Your task to perform on an android device: Open the calendar and show me this week's events? Image 0: 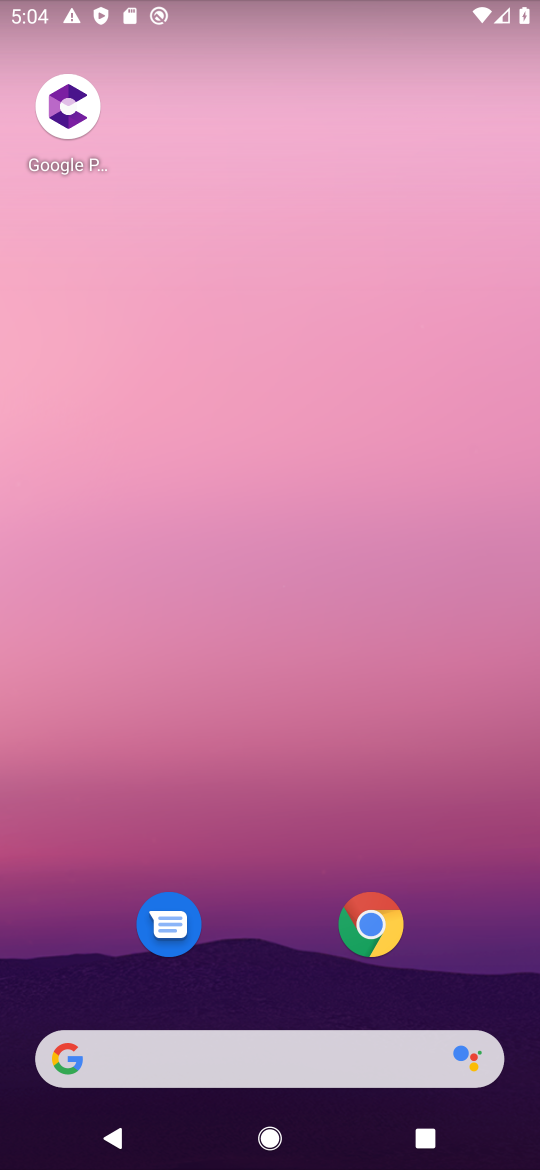
Step 0: drag from (358, 1123) to (281, 6)
Your task to perform on an android device: Open the calendar and show me this week's events? Image 1: 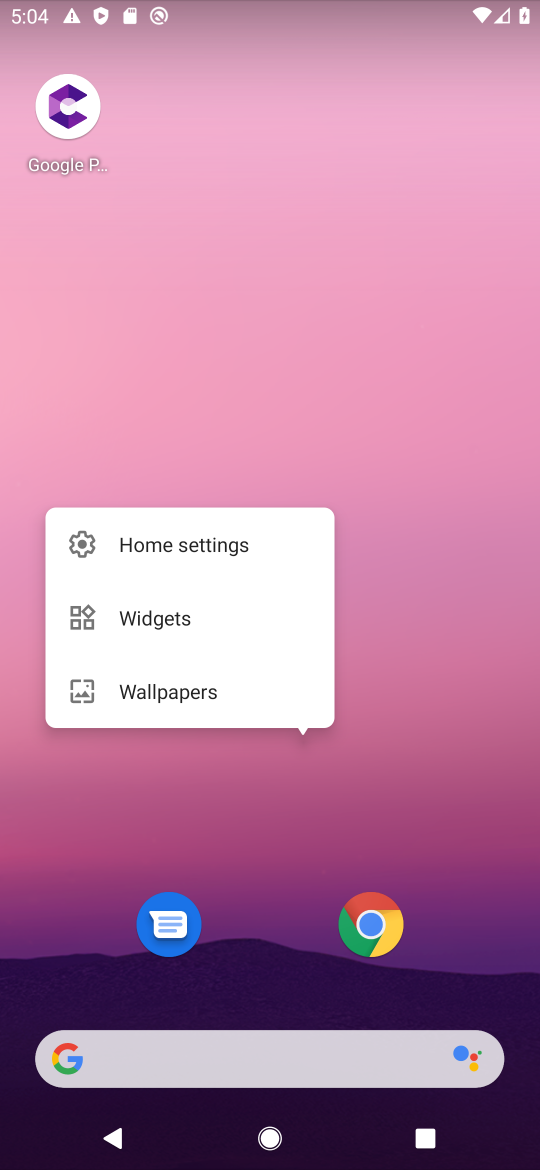
Step 1: click (350, 1124)
Your task to perform on an android device: Open the calendar and show me this week's events? Image 2: 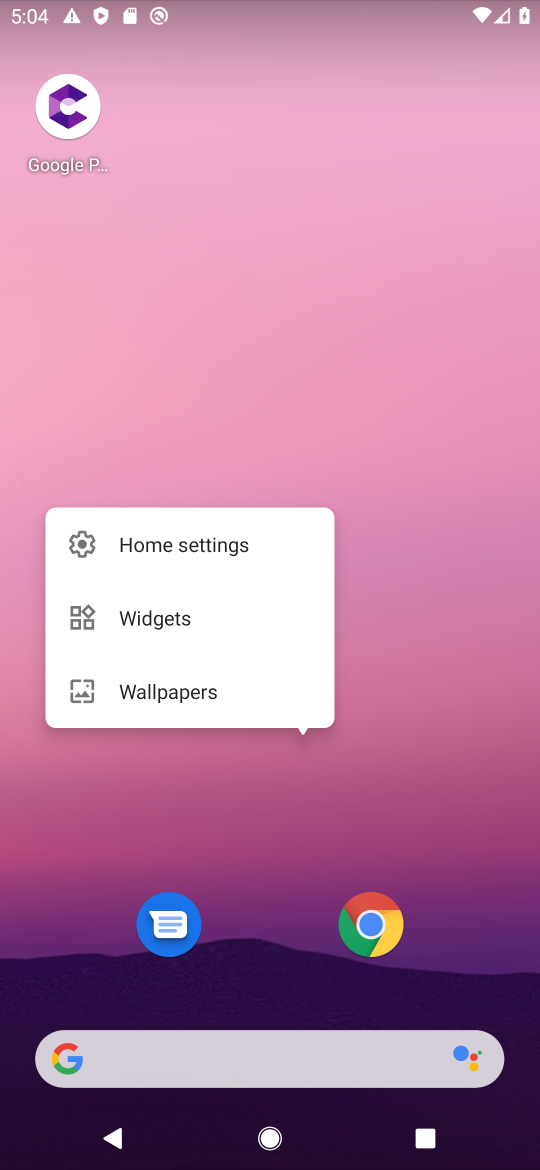
Step 2: drag from (354, 1122) to (372, 257)
Your task to perform on an android device: Open the calendar and show me this week's events? Image 3: 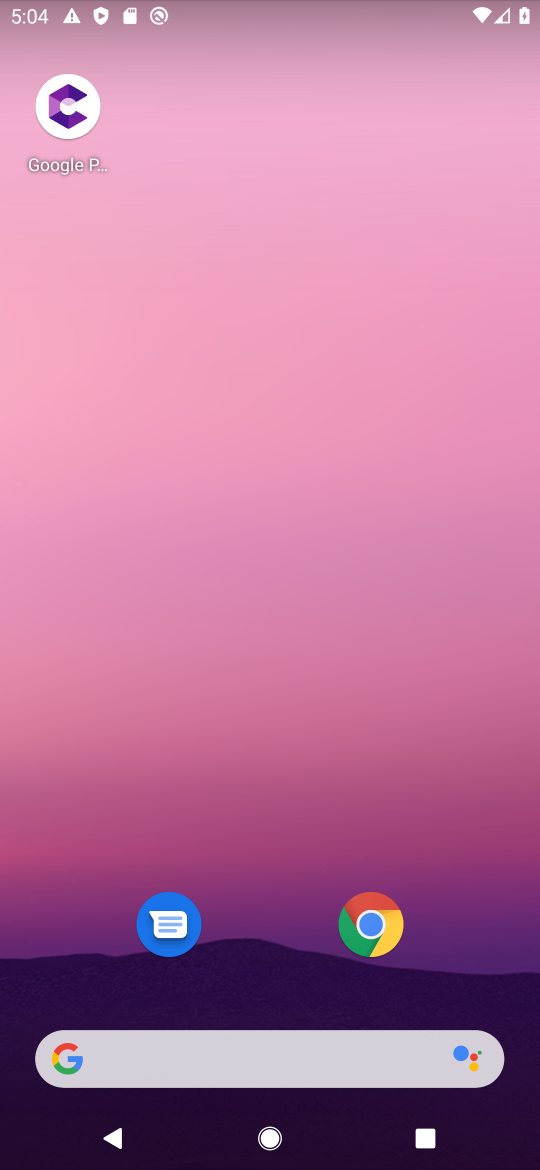
Step 3: drag from (196, 1129) to (253, 208)
Your task to perform on an android device: Open the calendar and show me this week's events? Image 4: 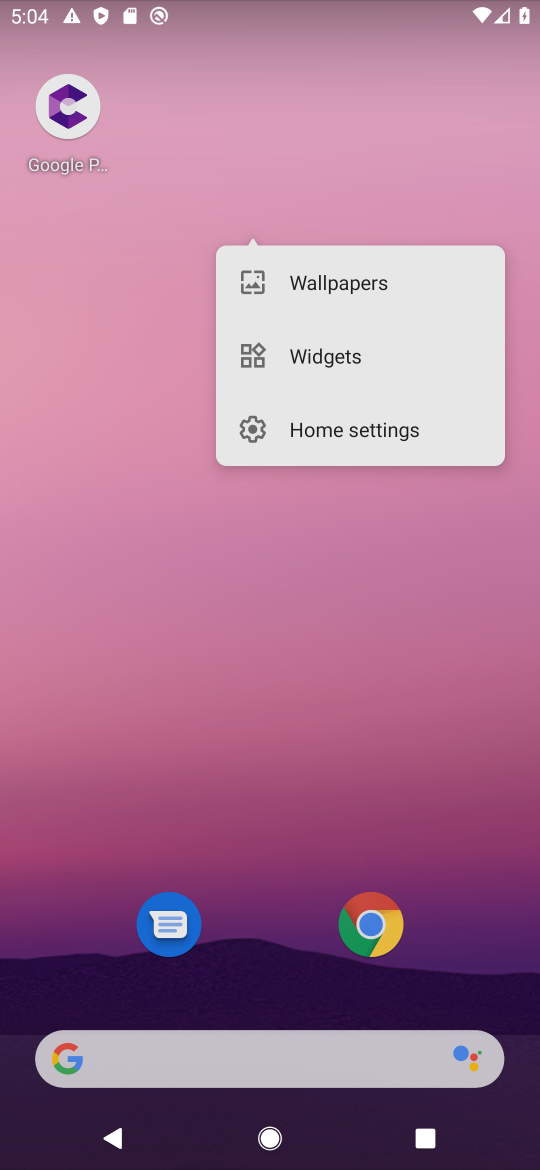
Step 4: click (296, 625)
Your task to perform on an android device: Open the calendar and show me this week's events? Image 5: 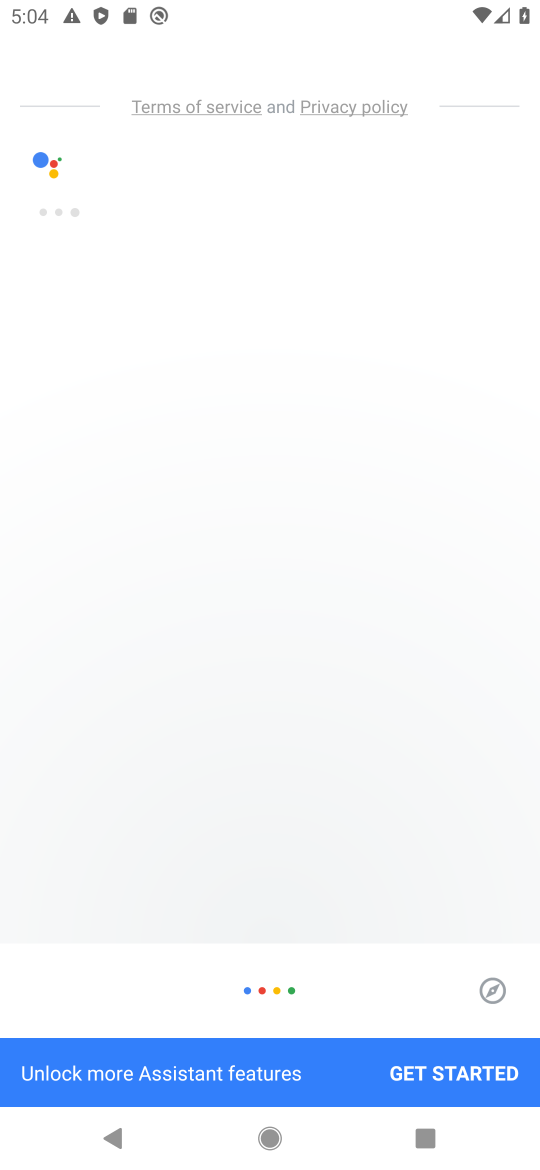
Step 5: click (281, 1132)
Your task to perform on an android device: Open the calendar and show me this week's events? Image 6: 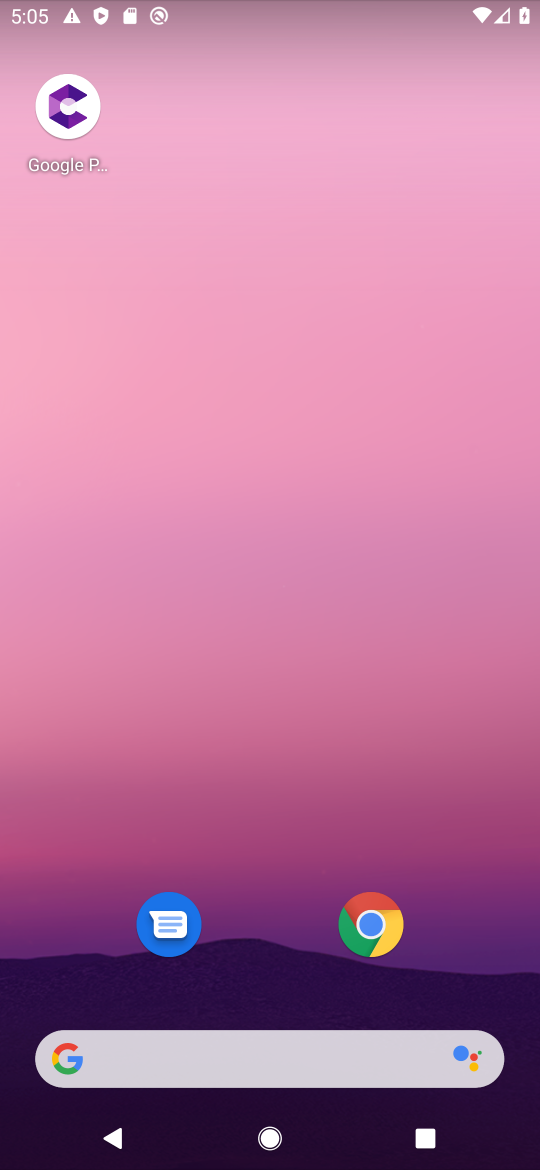
Step 6: drag from (225, 1131) to (318, 66)
Your task to perform on an android device: Open the calendar and show me this week's events? Image 7: 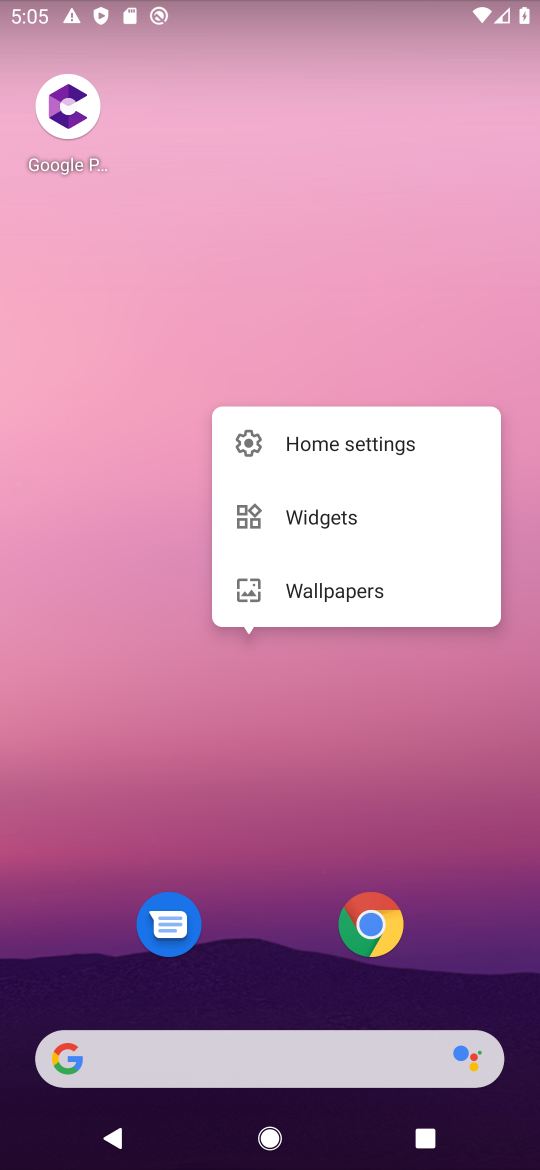
Step 7: drag from (174, 1113) to (264, 116)
Your task to perform on an android device: Open the calendar and show me this week's events? Image 8: 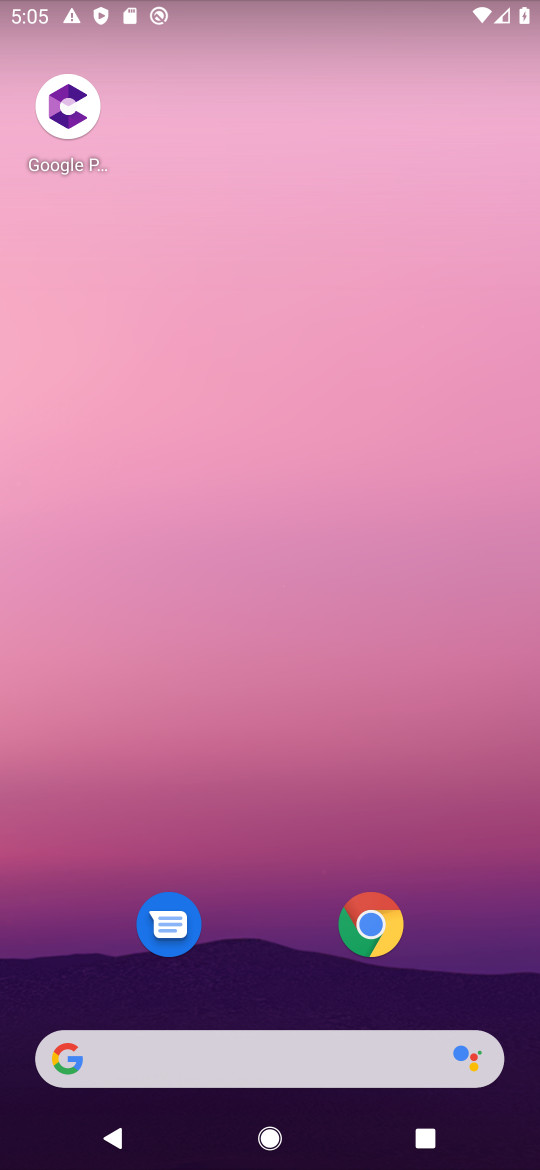
Step 8: drag from (221, 1129) to (291, 101)
Your task to perform on an android device: Open the calendar and show me this week's events? Image 9: 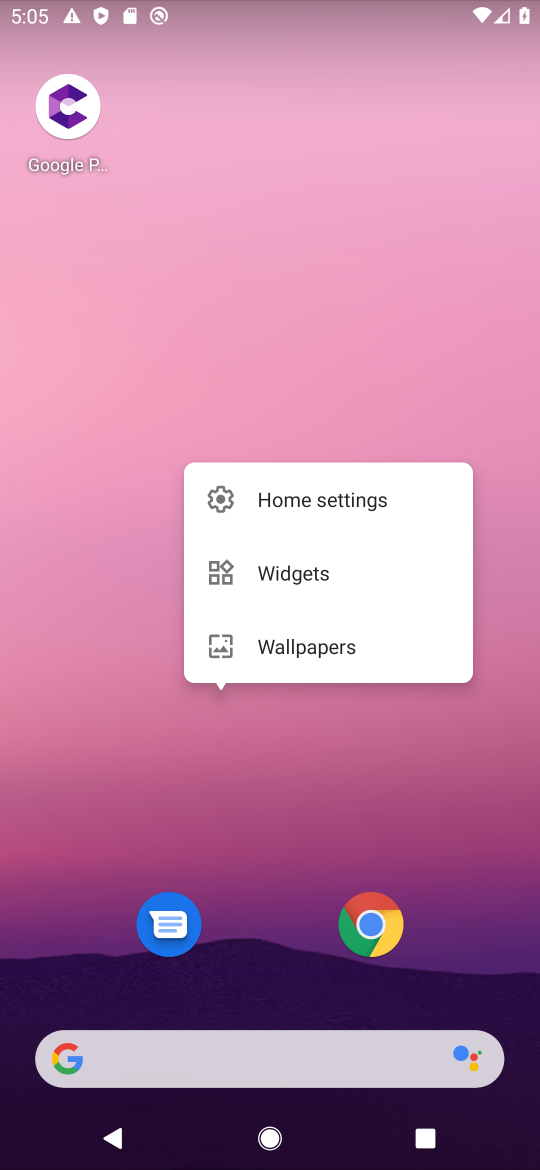
Step 9: drag from (396, 1128) to (346, 168)
Your task to perform on an android device: Open the calendar and show me this week's events? Image 10: 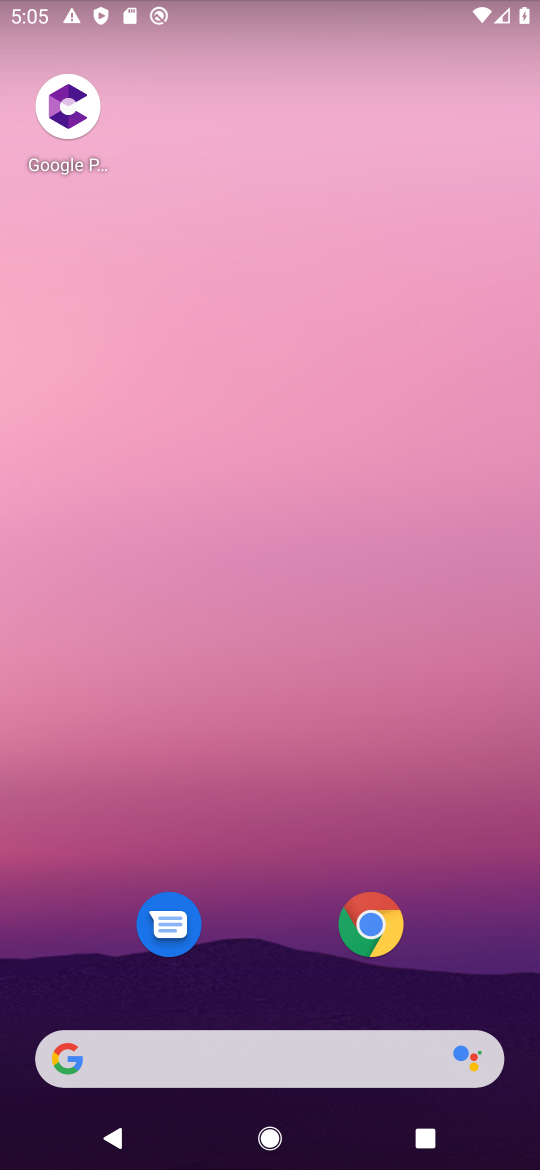
Step 10: drag from (363, 1052) to (326, 0)
Your task to perform on an android device: Open the calendar and show me this week's events? Image 11: 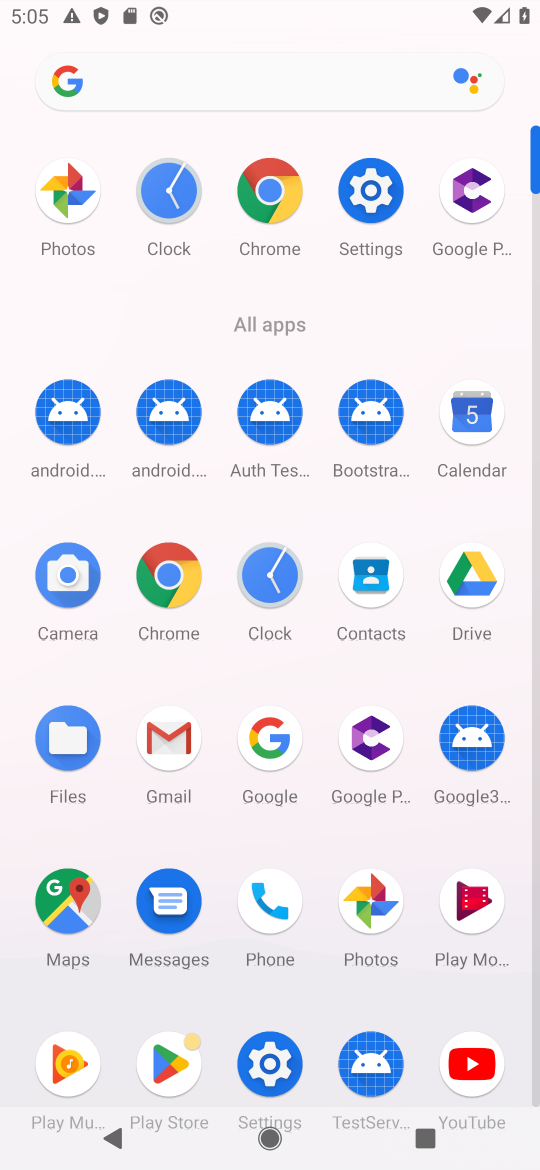
Step 11: click (472, 422)
Your task to perform on an android device: Open the calendar and show me this week's events? Image 12: 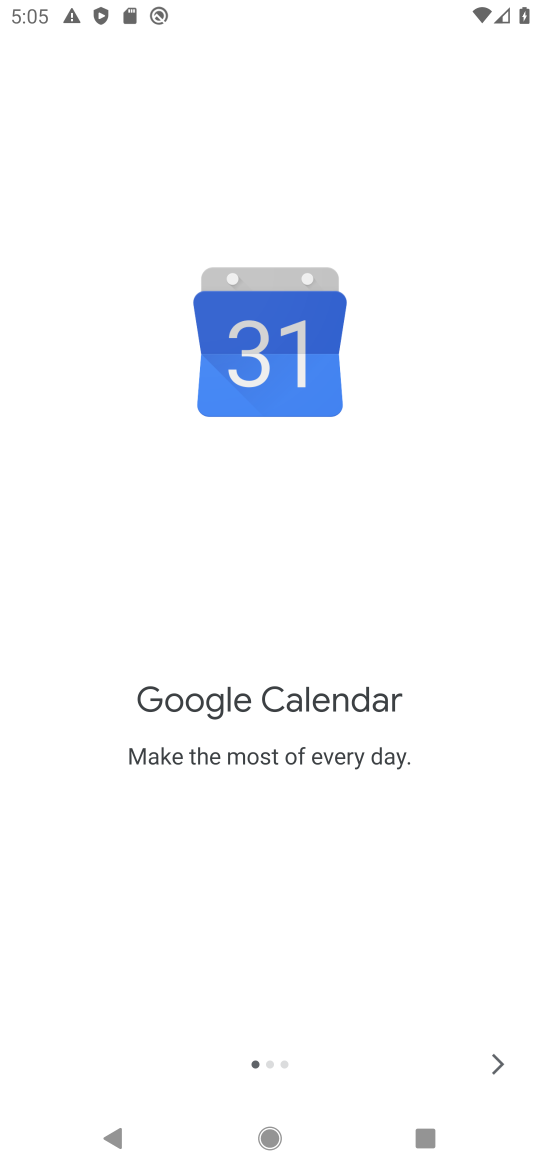
Step 12: click (500, 1067)
Your task to perform on an android device: Open the calendar and show me this week's events? Image 13: 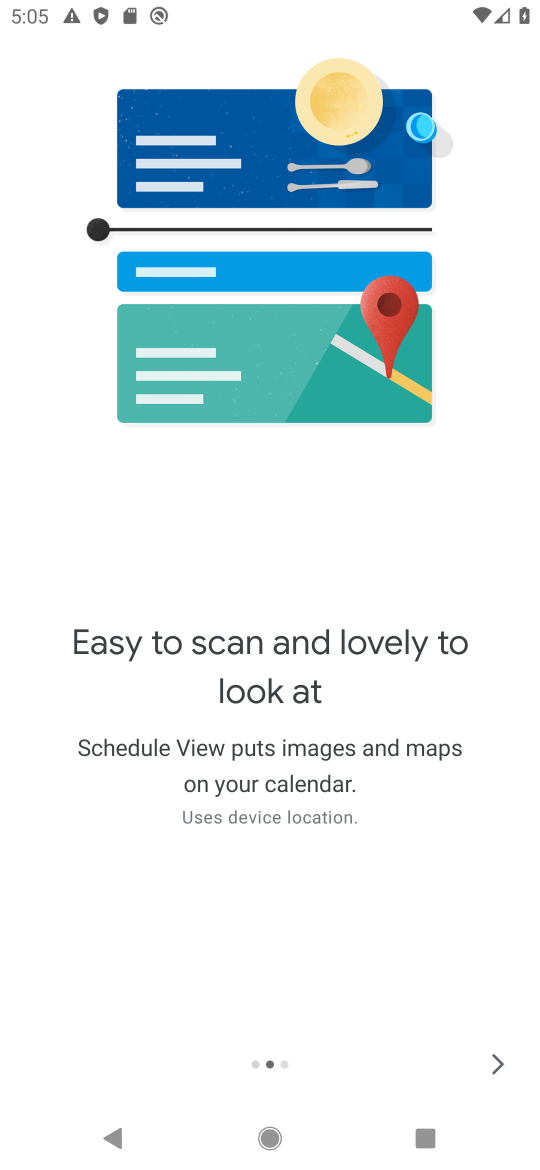
Step 13: click (500, 1067)
Your task to perform on an android device: Open the calendar and show me this week's events? Image 14: 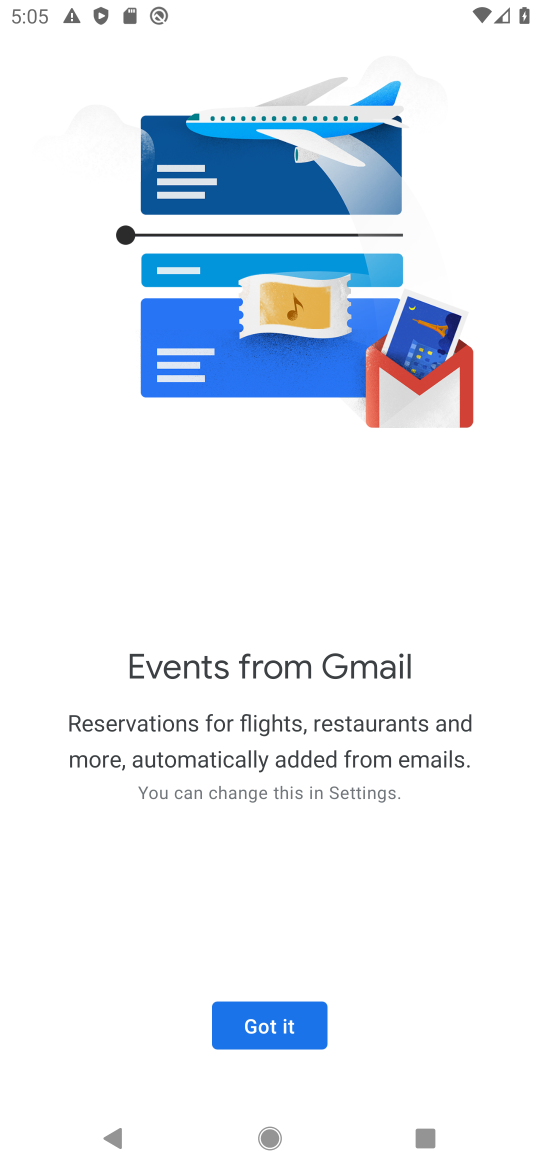
Step 14: click (265, 1035)
Your task to perform on an android device: Open the calendar and show me this week's events? Image 15: 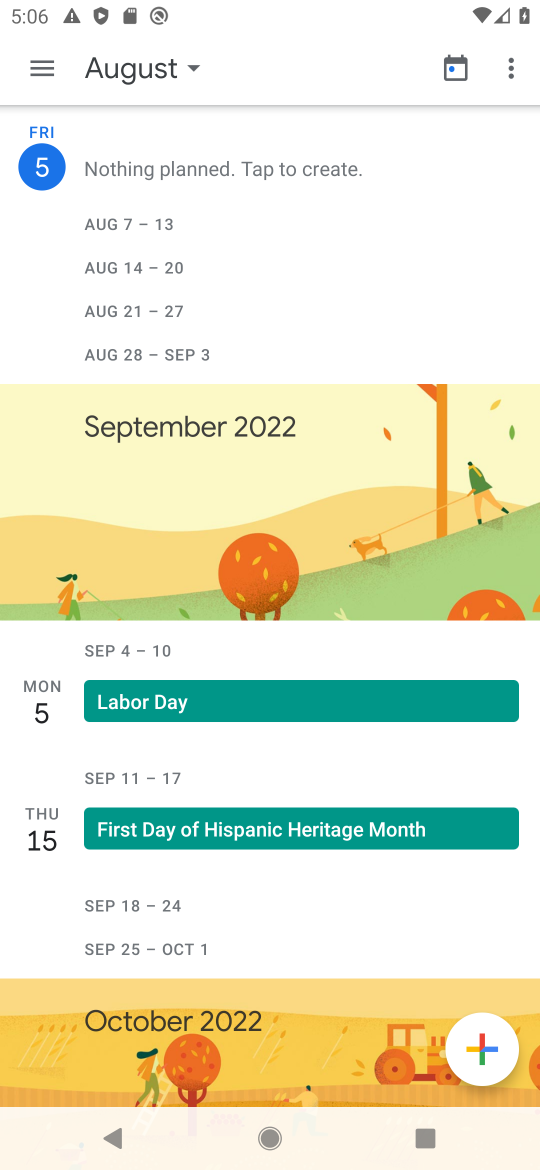
Step 15: click (149, 59)
Your task to perform on an android device: Open the calendar and show me this week's events? Image 16: 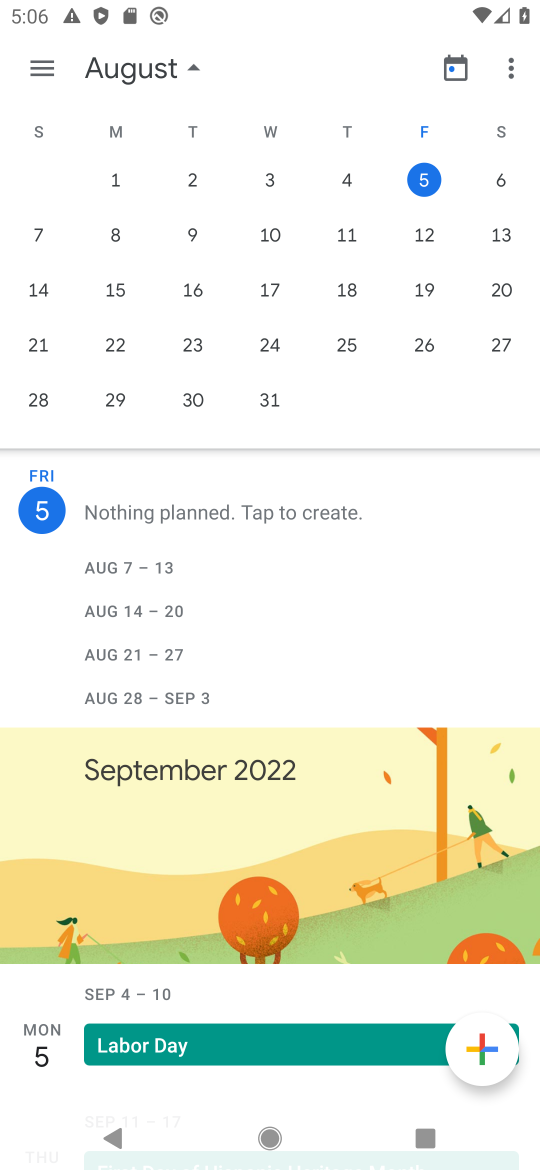
Step 16: task complete